Your task to perform on an android device: add a contact in the contacts app Image 0: 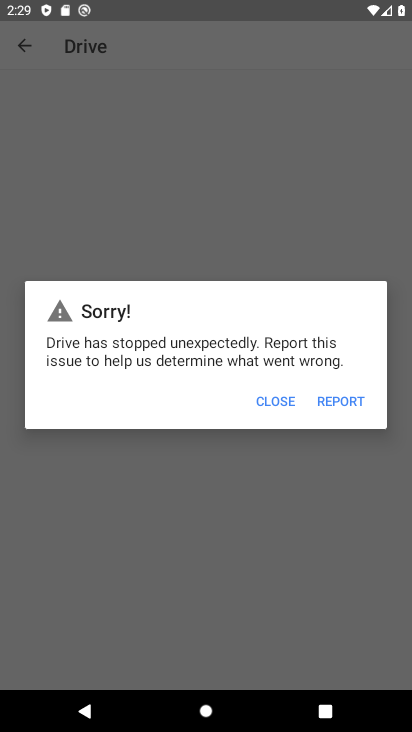
Step 0: click (206, 194)
Your task to perform on an android device: add a contact in the contacts app Image 1: 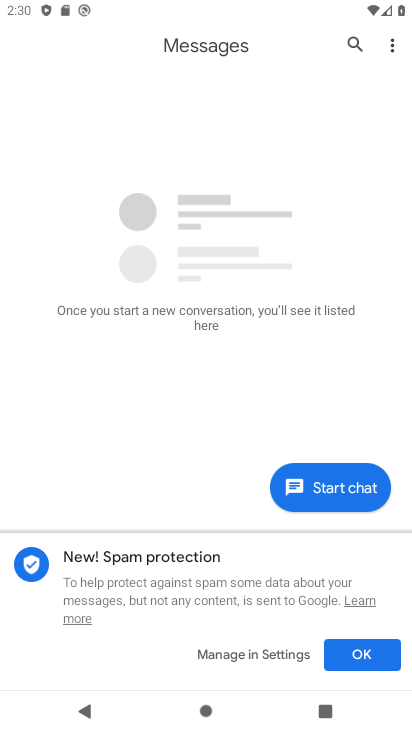
Step 1: press home button
Your task to perform on an android device: add a contact in the contacts app Image 2: 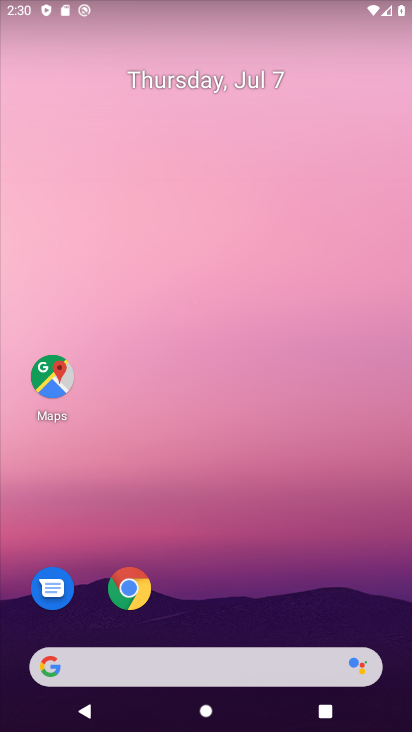
Step 2: drag from (217, 595) to (244, 30)
Your task to perform on an android device: add a contact in the contacts app Image 3: 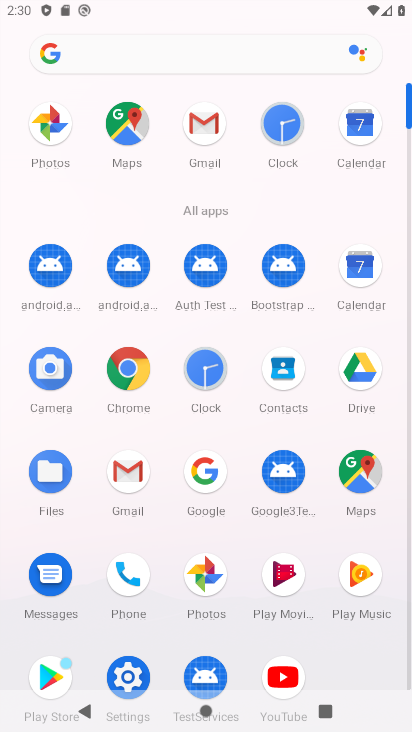
Step 3: click (295, 379)
Your task to perform on an android device: add a contact in the contacts app Image 4: 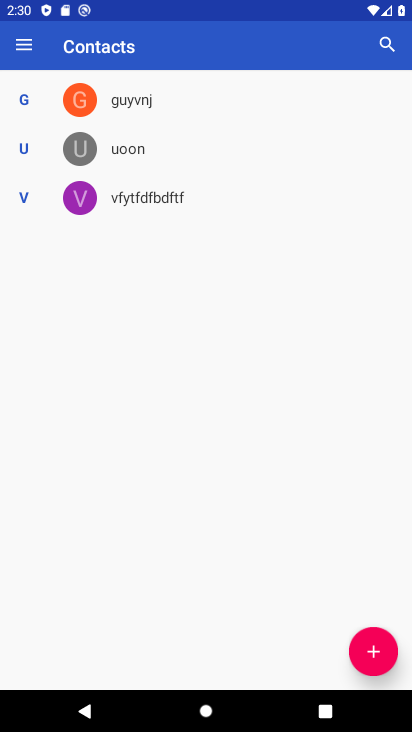
Step 4: click (376, 662)
Your task to perform on an android device: add a contact in the contacts app Image 5: 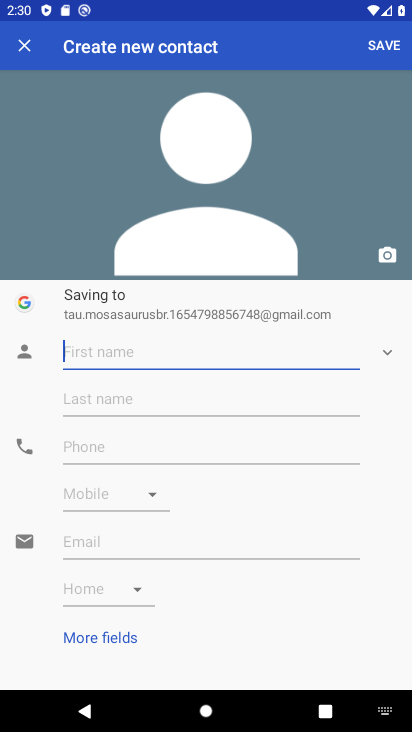
Step 5: type "sonu"
Your task to perform on an android device: add a contact in the contacts app Image 6: 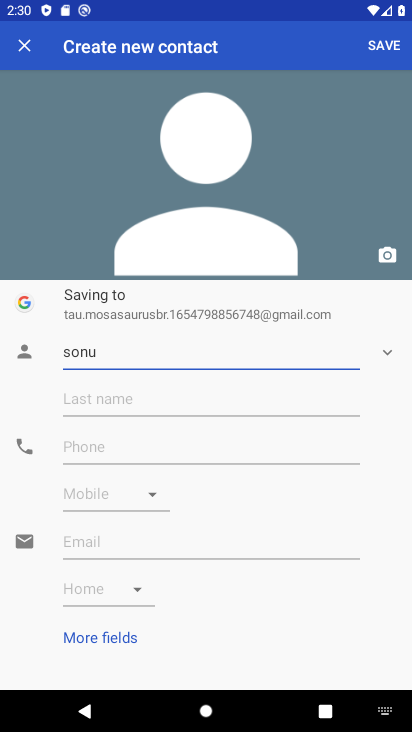
Step 6: click (231, 456)
Your task to perform on an android device: add a contact in the contacts app Image 7: 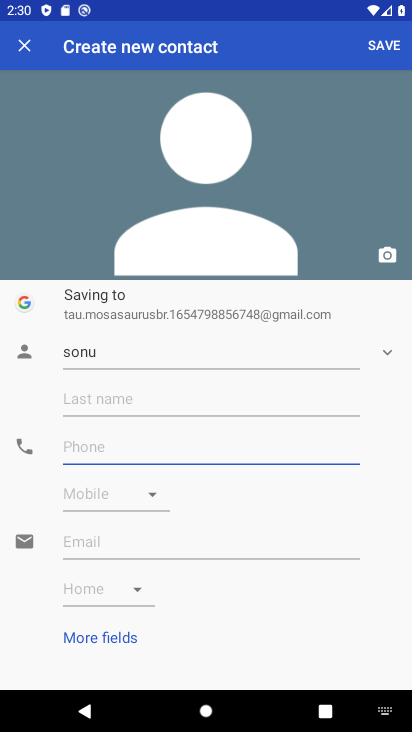
Step 7: type "9838927498"
Your task to perform on an android device: add a contact in the contacts app Image 8: 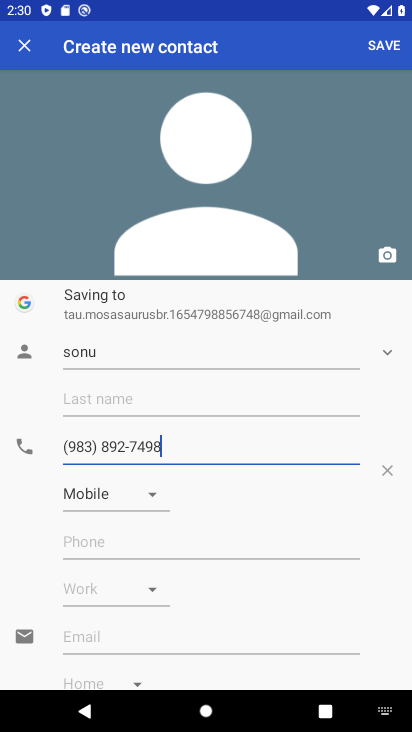
Step 8: click (381, 43)
Your task to perform on an android device: add a contact in the contacts app Image 9: 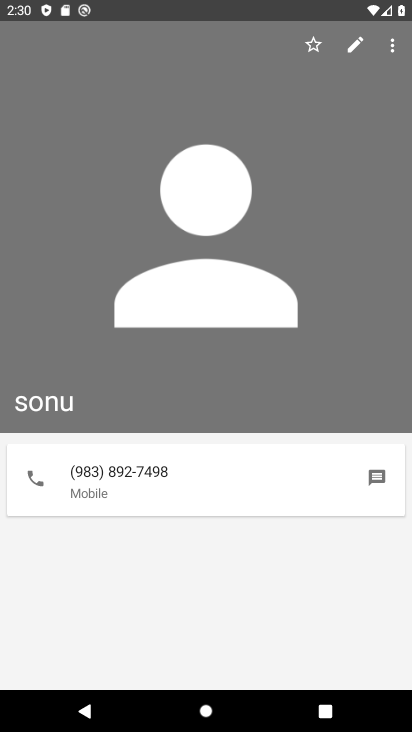
Step 9: task complete